Your task to perform on an android device: Open Reddit.com Image 0: 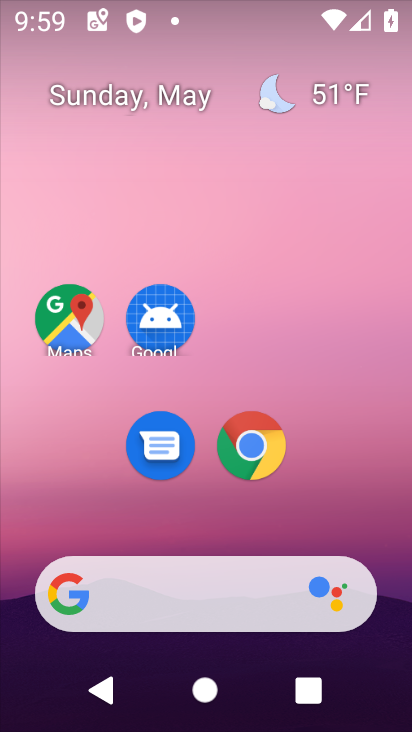
Step 0: click (256, 446)
Your task to perform on an android device: Open Reddit.com Image 1: 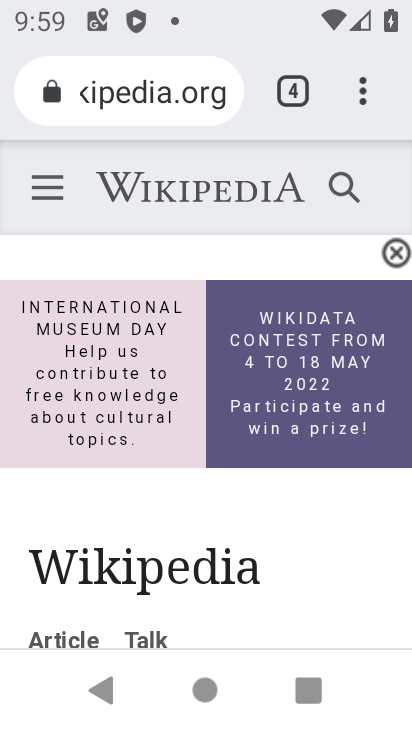
Step 1: click (360, 97)
Your task to perform on an android device: Open Reddit.com Image 2: 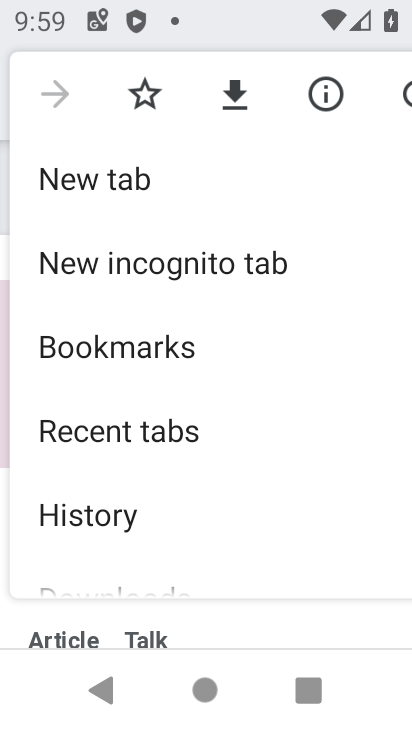
Step 2: click (103, 176)
Your task to perform on an android device: Open Reddit.com Image 3: 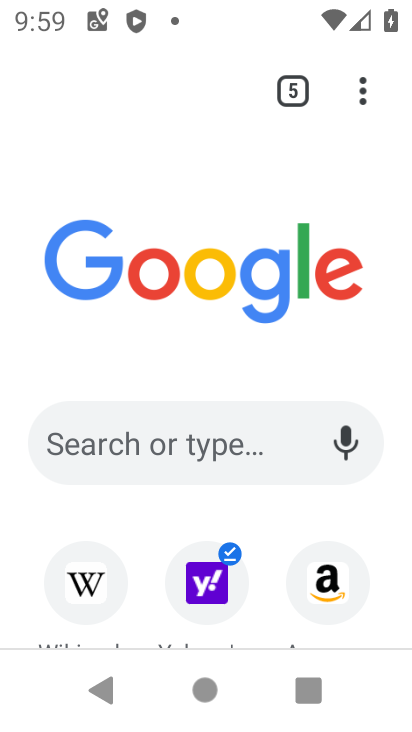
Step 3: click (148, 421)
Your task to perform on an android device: Open Reddit.com Image 4: 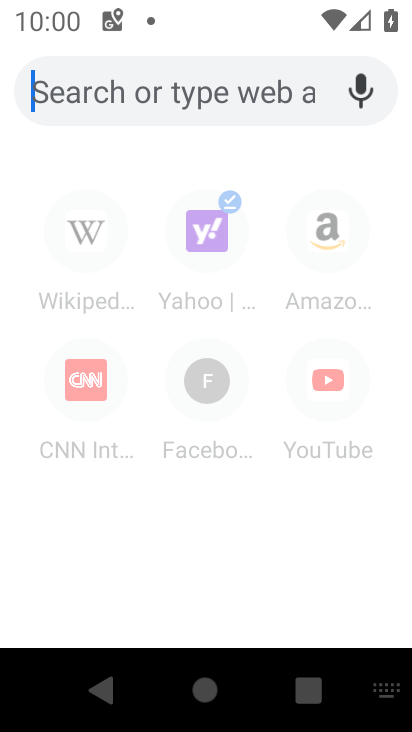
Step 4: type "reddit.com"
Your task to perform on an android device: Open Reddit.com Image 5: 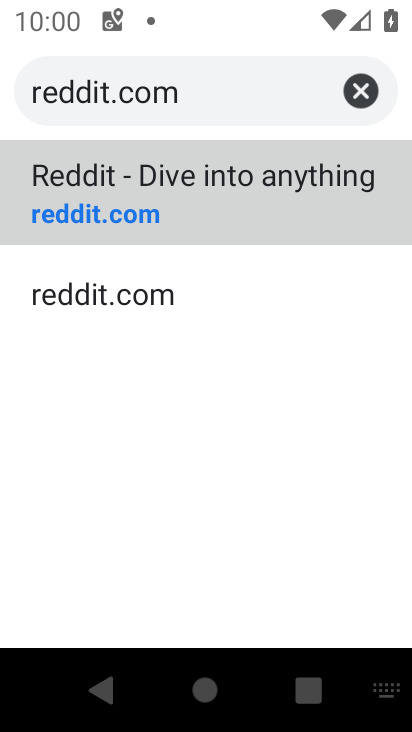
Step 5: click (126, 194)
Your task to perform on an android device: Open Reddit.com Image 6: 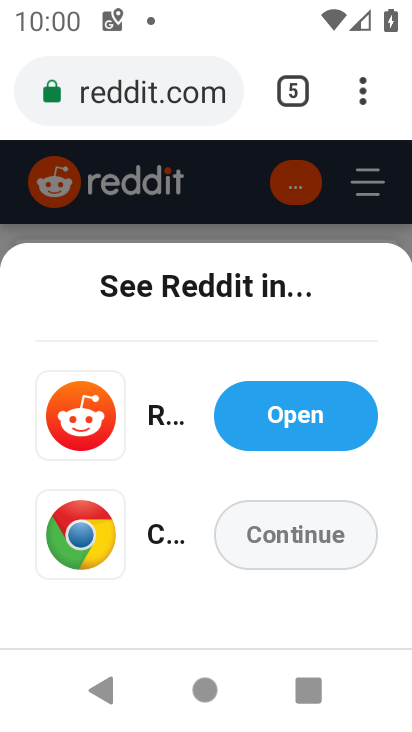
Step 6: task complete